Your task to perform on an android device: Open my contact list Image 0: 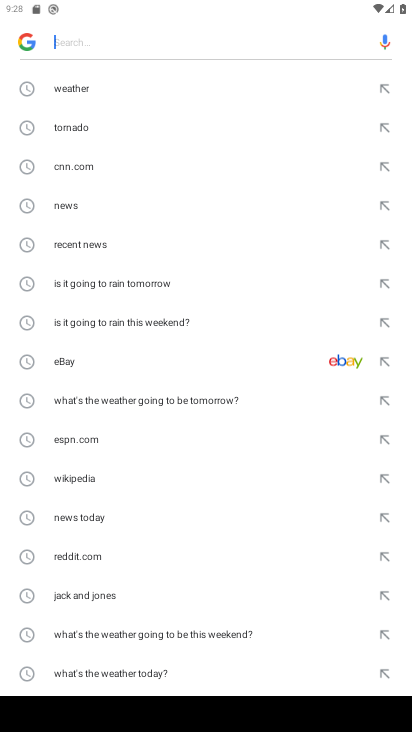
Step 0: press home button
Your task to perform on an android device: Open my contact list Image 1: 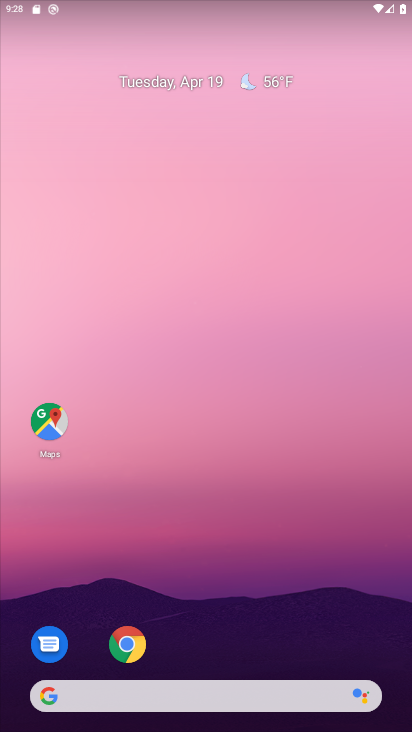
Step 1: drag from (219, 583) to (219, 174)
Your task to perform on an android device: Open my contact list Image 2: 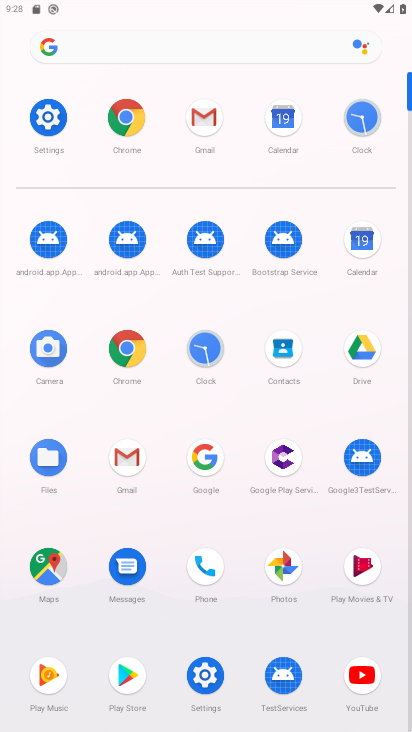
Step 2: click (274, 347)
Your task to perform on an android device: Open my contact list Image 3: 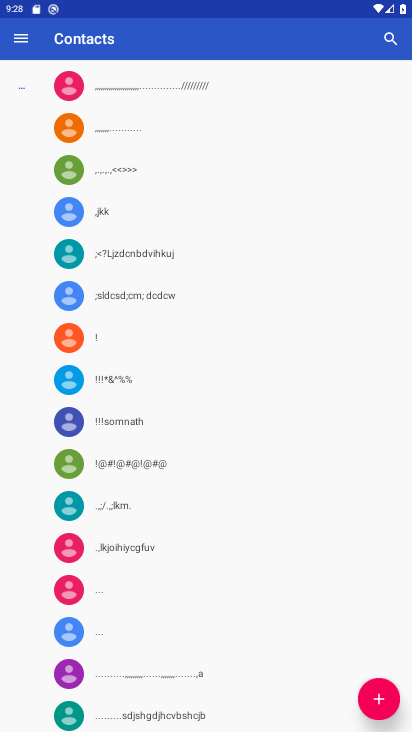
Step 3: task complete